Your task to perform on an android device: turn on javascript in the chrome app Image 0: 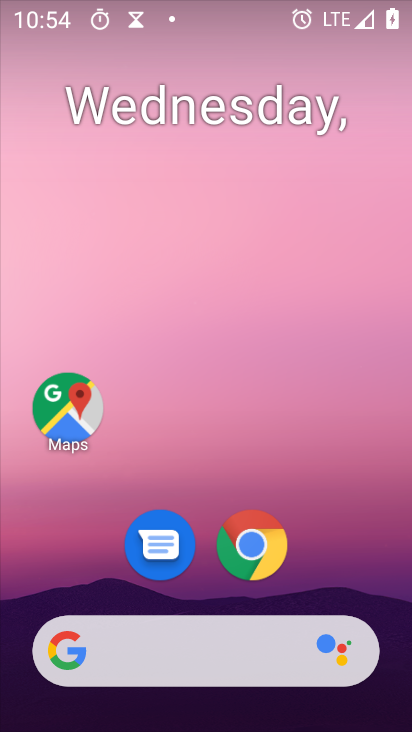
Step 0: press home button
Your task to perform on an android device: turn on javascript in the chrome app Image 1: 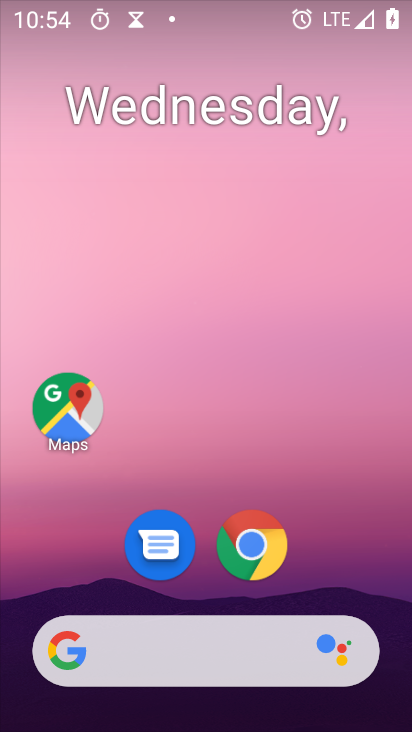
Step 1: click (239, 556)
Your task to perform on an android device: turn on javascript in the chrome app Image 2: 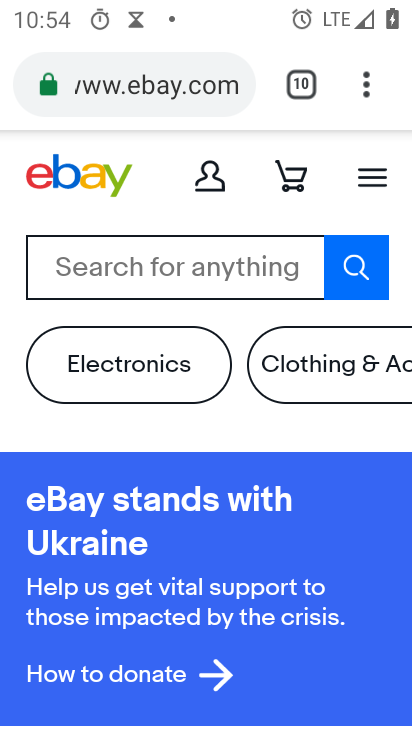
Step 2: drag from (360, 94) to (227, 566)
Your task to perform on an android device: turn on javascript in the chrome app Image 3: 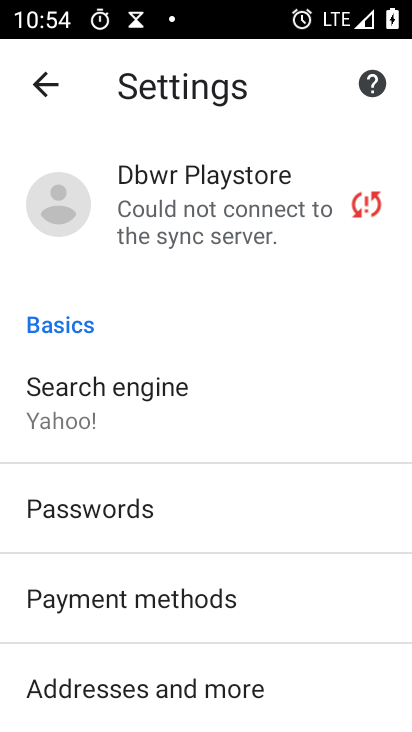
Step 3: drag from (247, 656) to (409, 60)
Your task to perform on an android device: turn on javascript in the chrome app Image 4: 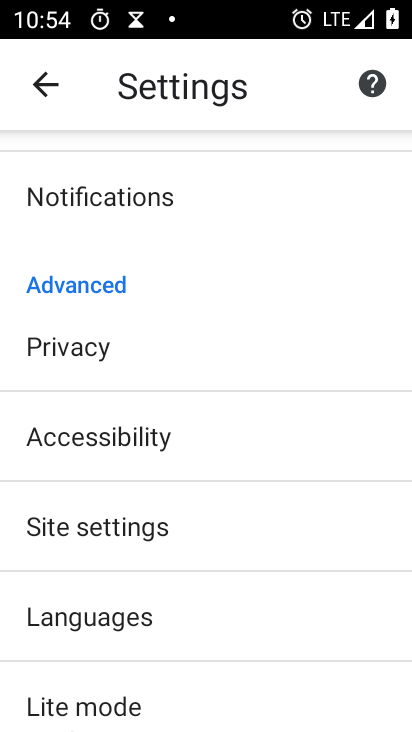
Step 4: click (134, 526)
Your task to perform on an android device: turn on javascript in the chrome app Image 5: 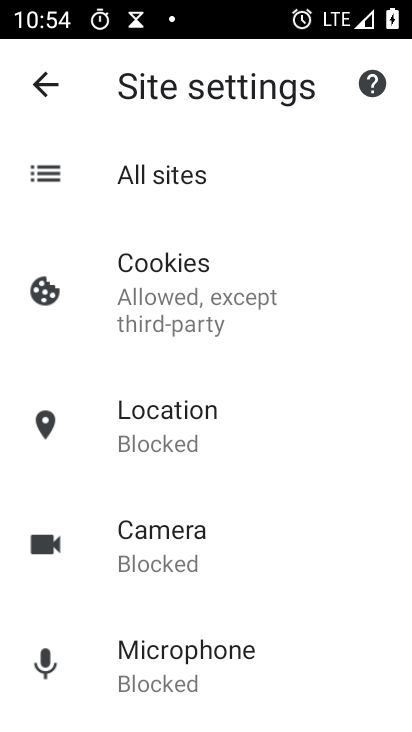
Step 5: drag from (280, 642) to (374, 161)
Your task to perform on an android device: turn on javascript in the chrome app Image 6: 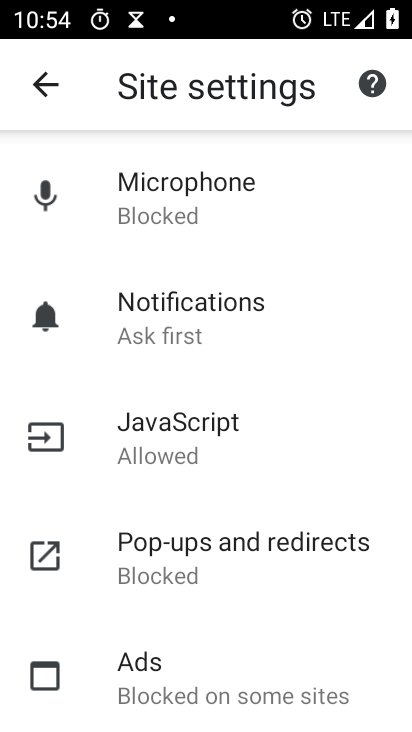
Step 6: click (205, 446)
Your task to perform on an android device: turn on javascript in the chrome app Image 7: 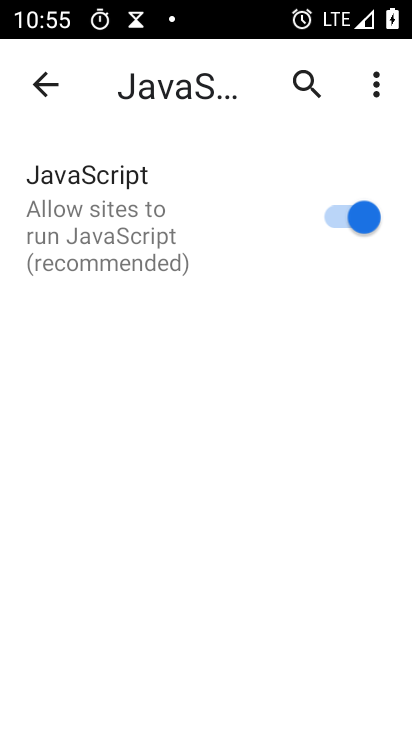
Step 7: task complete